Your task to perform on an android device: Clear the cart on amazon. Search for "lenovo thinkpad" on amazon, select the first entry, add it to the cart, then select checkout. Image 0: 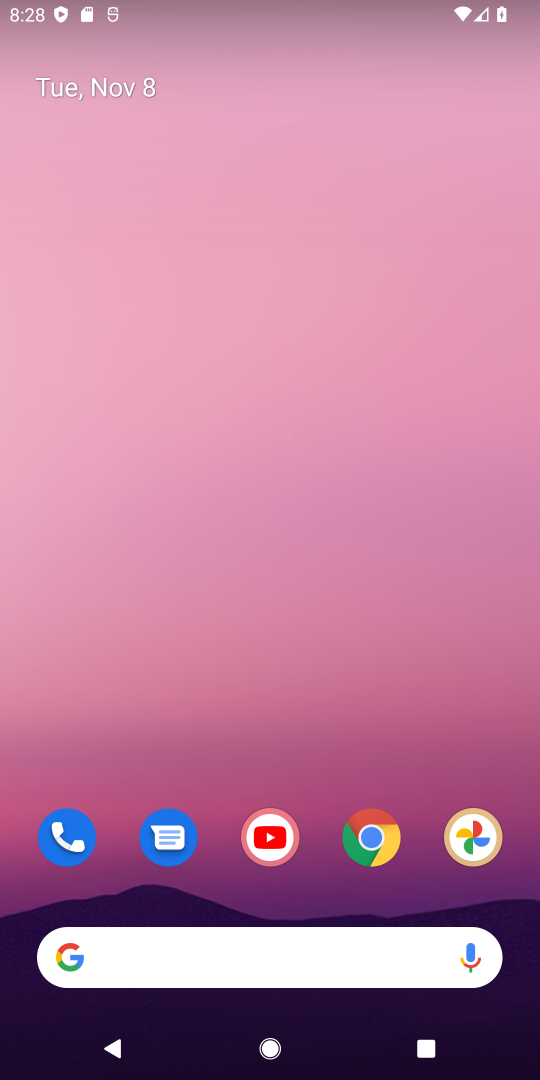
Step 0: click (374, 833)
Your task to perform on an android device: Clear the cart on amazon. Search for "lenovo thinkpad" on amazon, select the first entry, add it to the cart, then select checkout. Image 1: 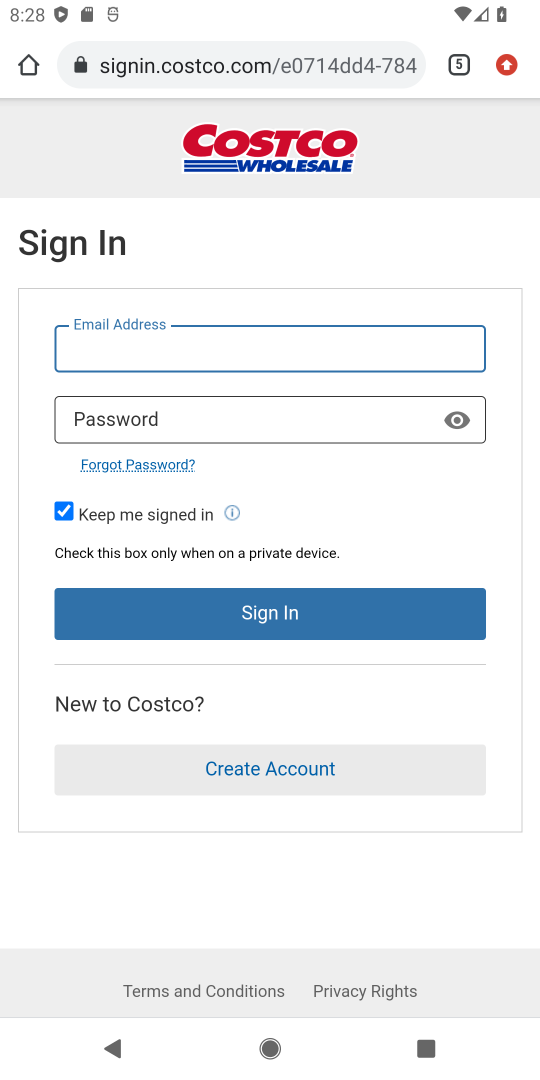
Step 1: click (460, 74)
Your task to perform on an android device: Clear the cart on amazon. Search for "lenovo thinkpad" on amazon, select the first entry, add it to the cart, then select checkout. Image 2: 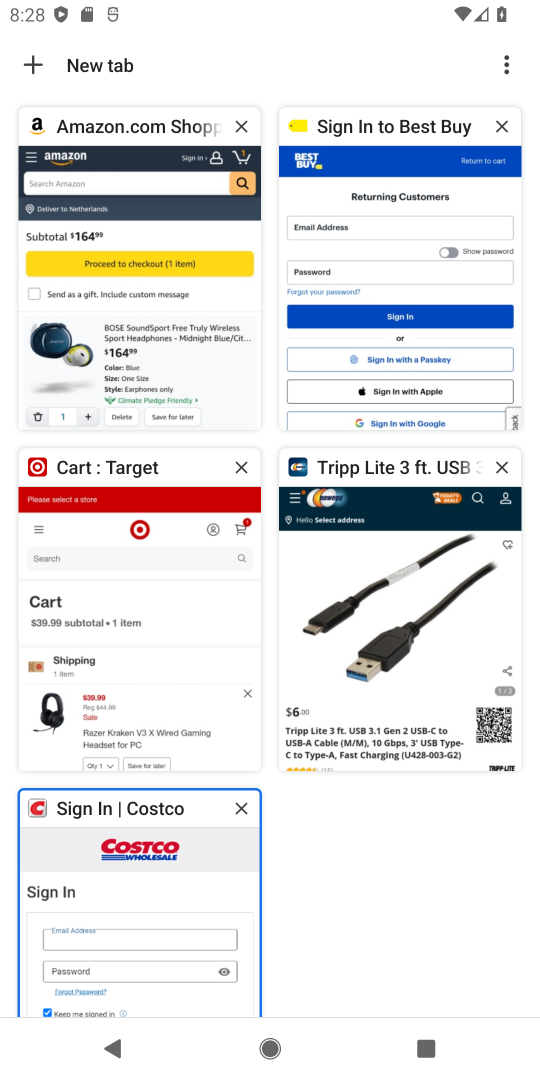
Step 2: click (156, 219)
Your task to perform on an android device: Clear the cart on amazon. Search for "lenovo thinkpad" on amazon, select the first entry, add it to the cart, then select checkout. Image 3: 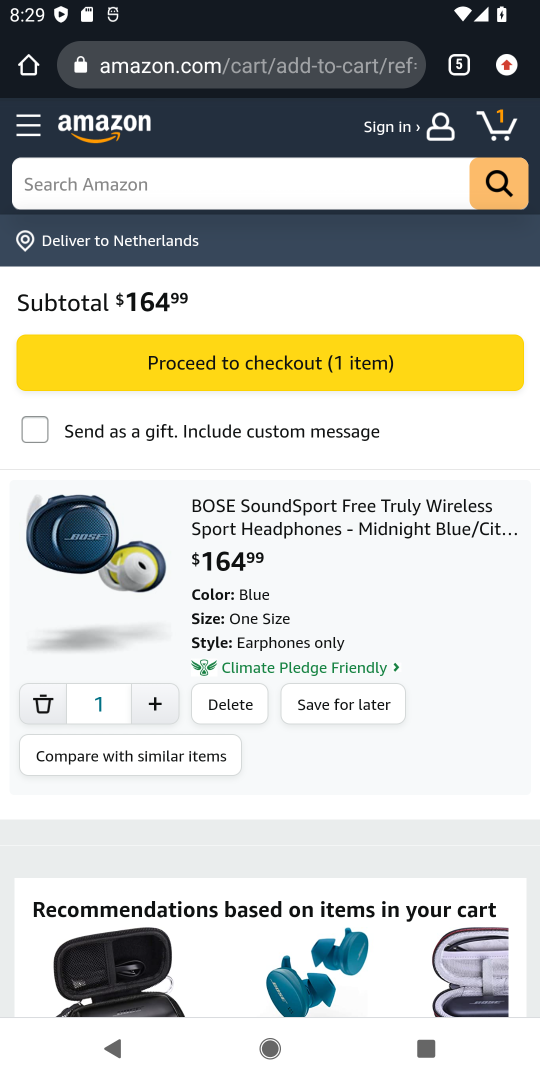
Step 3: click (265, 184)
Your task to perform on an android device: Clear the cart on amazon. Search for "lenovo thinkpad" on amazon, select the first entry, add it to the cart, then select checkout. Image 4: 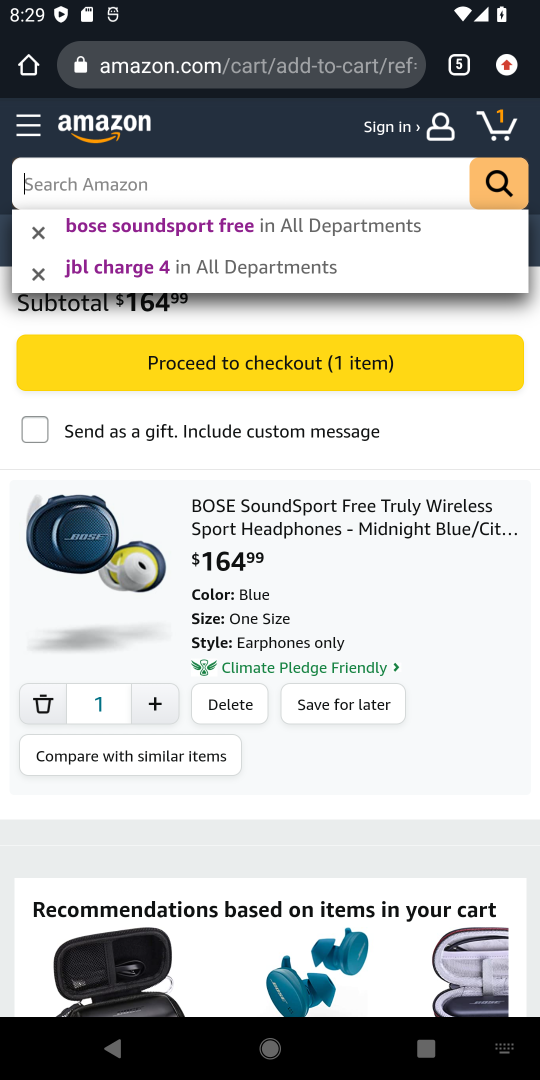
Step 4: type "lenovo thinkpad"
Your task to perform on an android device: Clear the cart on amazon. Search for "lenovo thinkpad" on amazon, select the first entry, add it to the cart, then select checkout. Image 5: 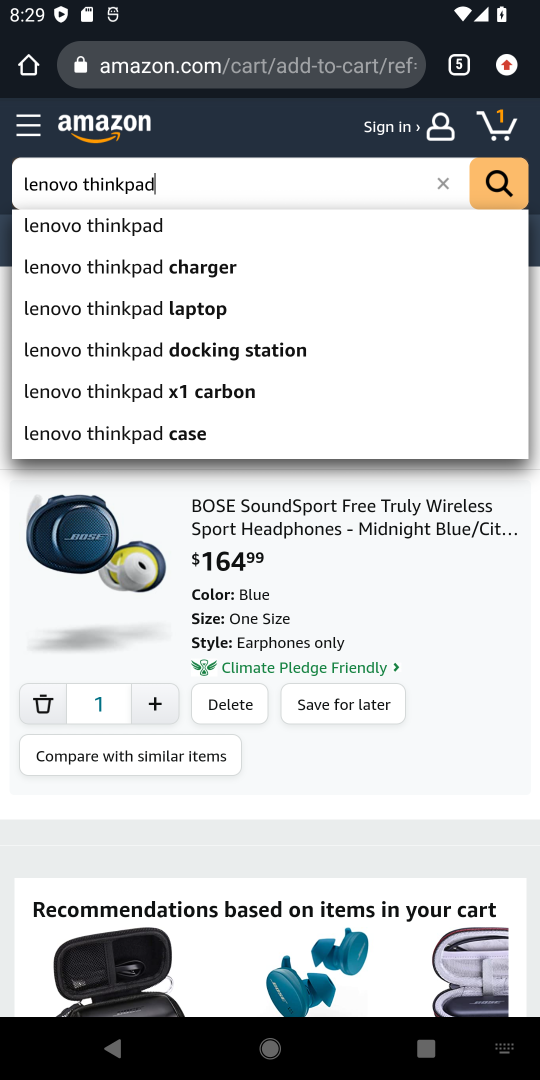
Step 5: click (146, 223)
Your task to perform on an android device: Clear the cart on amazon. Search for "lenovo thinkpad" on amazon, select the first entry, add it to the cart, then select checkout. Image 6: 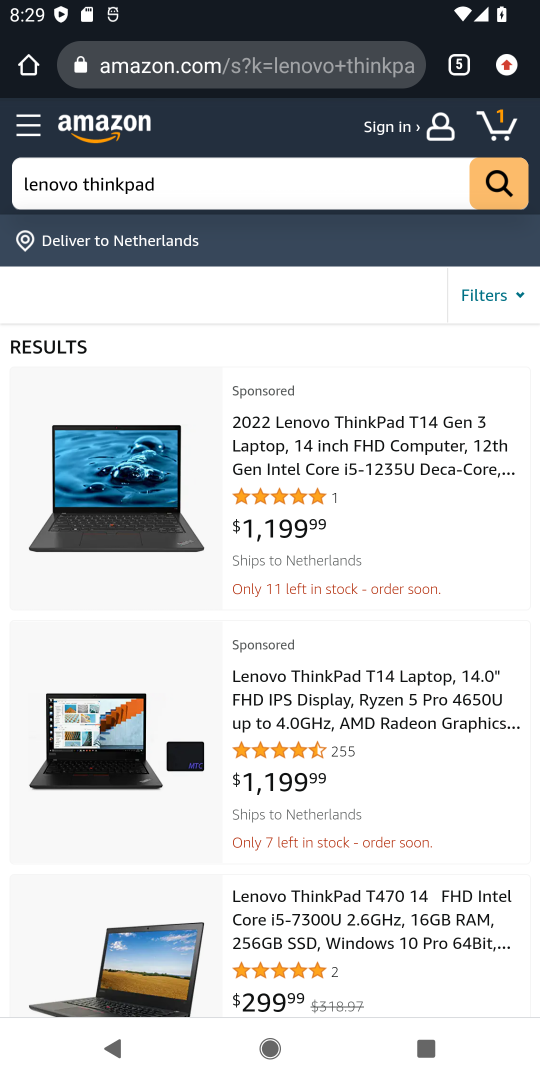
Step 6: click (370, 422)
Your task to perform on an android device: Clear the cart on amazon. Search for "lenovo thinkpad" on amazon, select the first entry, add it to the cart, then select checkout. Image 7: 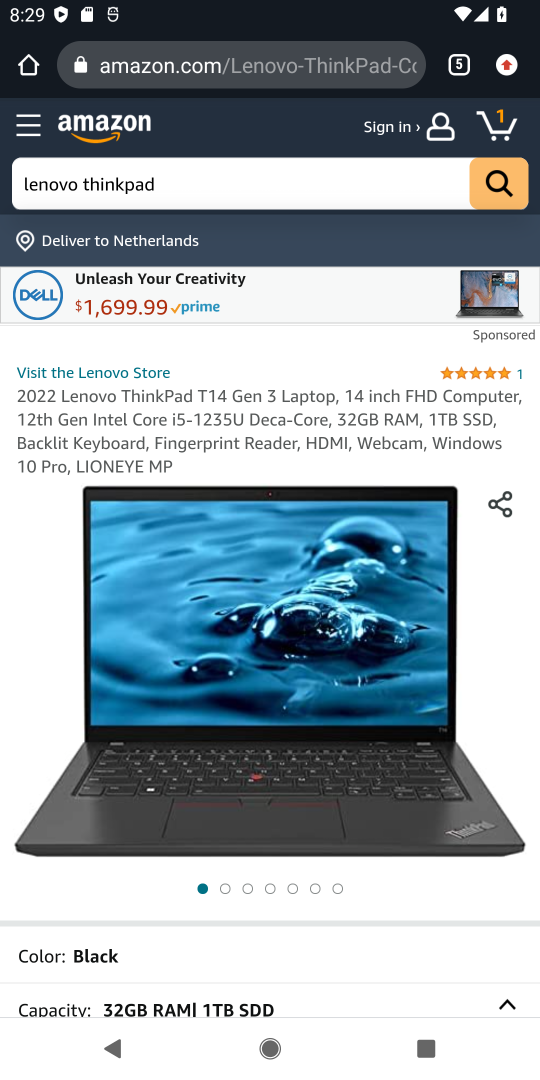
Step 7: drag from (347, 888) to (377, 272)
Your task to perform on an android device: Clear the cart on amazon. Search for "lenovo thinkpad" on amazon, select the first entry, add it to the cart, then select checkout. Image 8: 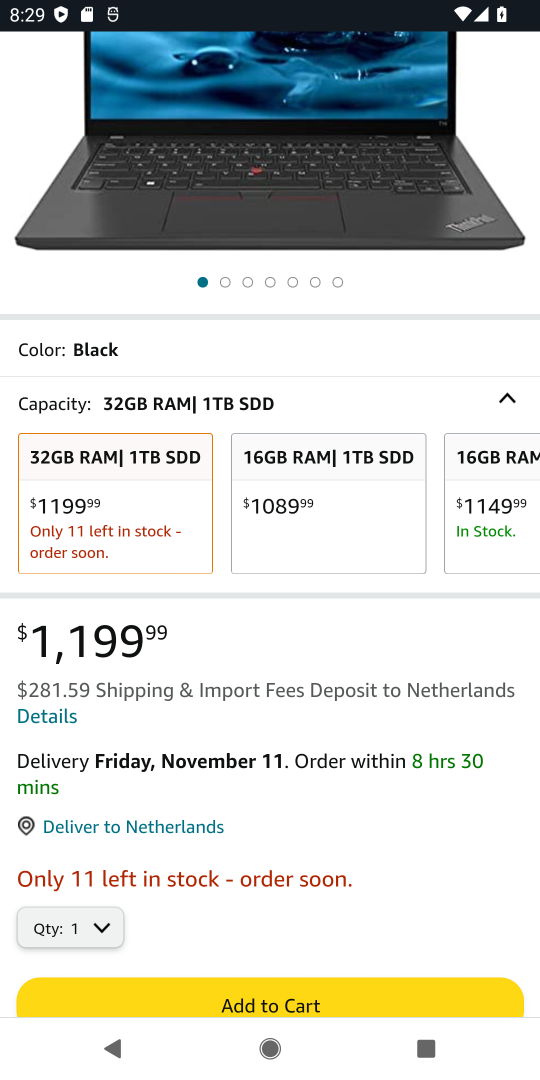
Step 8: click (277, 986)
Your task to perform on an android device: Clear the cart on amazon. Search for "lenovo thinkpad" on amazon, select the first entry, add it to the cart, then select checkout. Image 9: 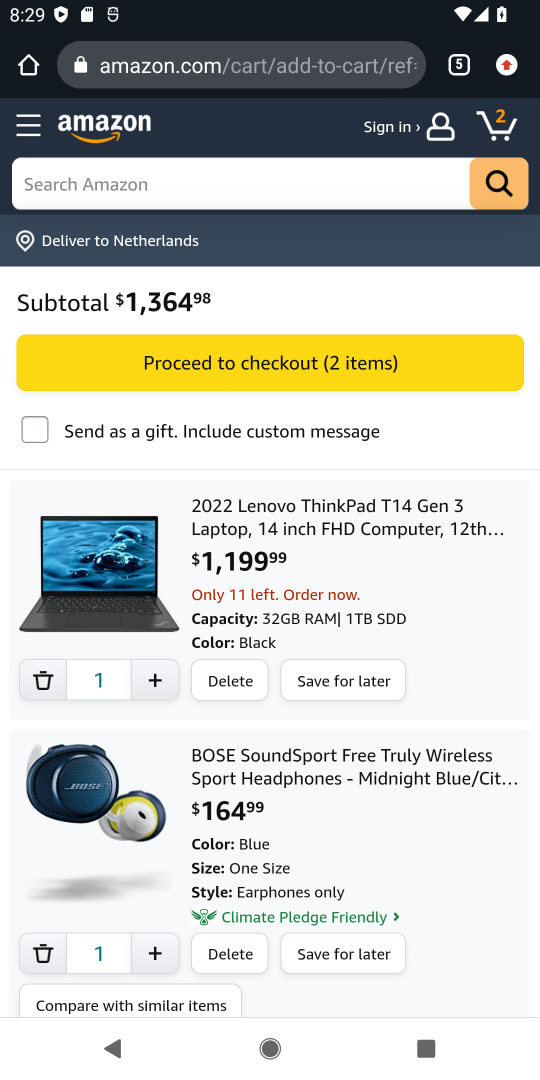
Step 9: click (507, 126)
Your task to perform on an android device: Clear the cart on amazon. Search for "lenovo thinkpad" on amazon, select the first entry, add it to the cart, then select checkout. Image 10: 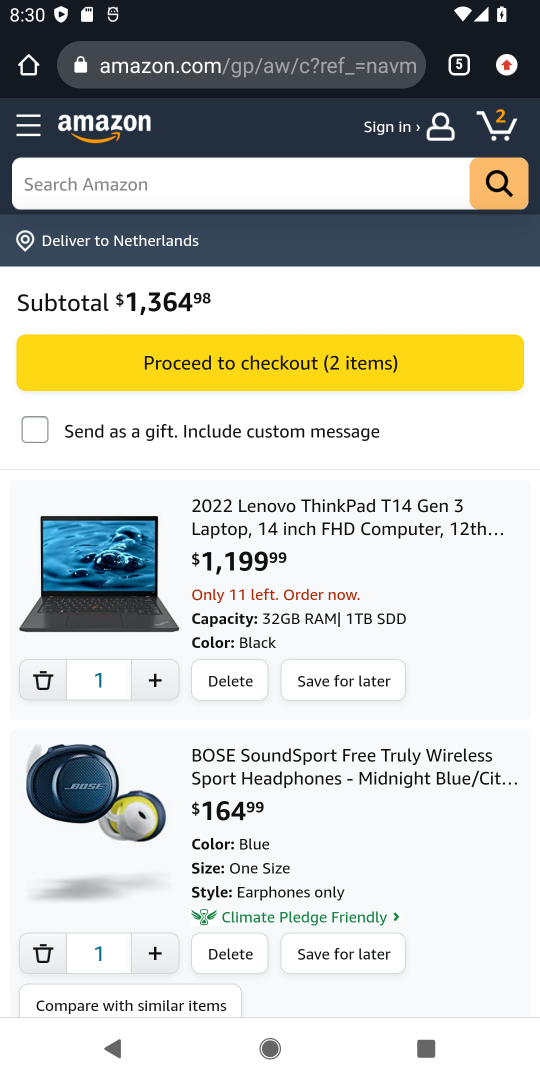
Step 10: click (224, 955)
Your task to perform on an android device: Clear the cart on amazon. Search for "lenovo thinkpad" on amazon, select the first entry, add it to the cart, then select checkout. Image 11: 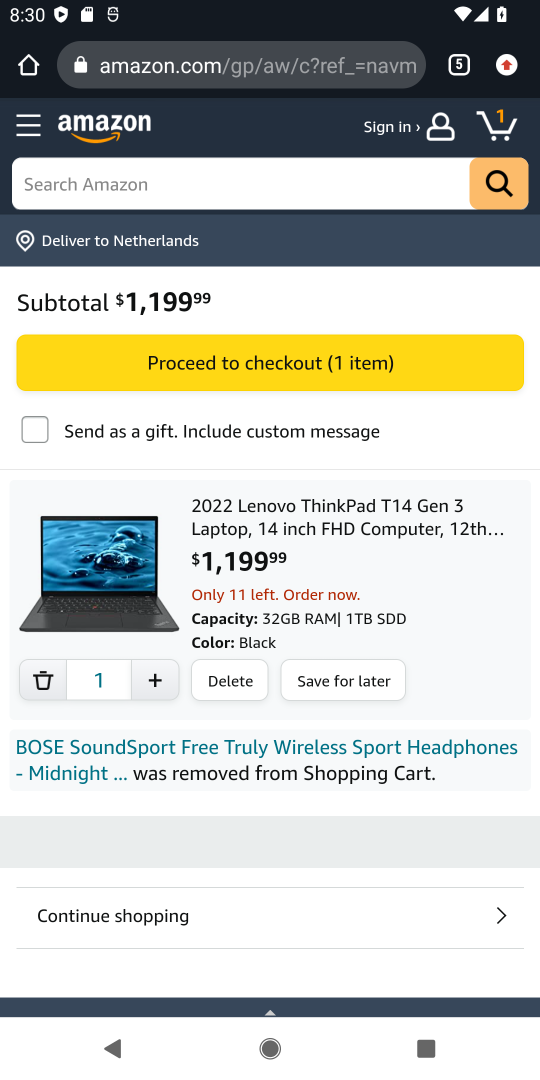
Step 11: task complete